Your task to perform on an android device: toggle wifi Image 0: 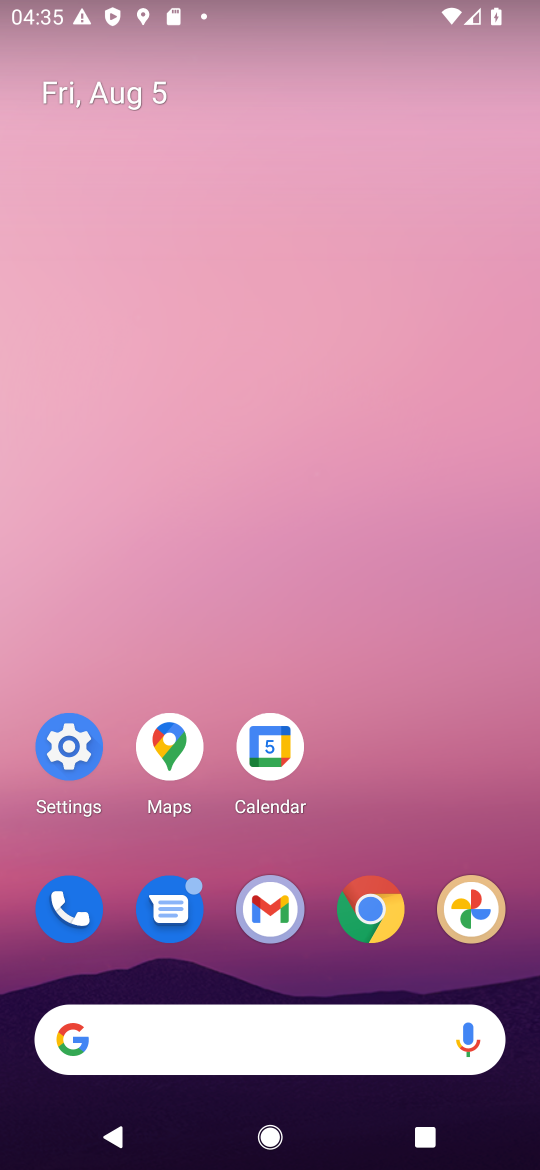
Step 0: click (62, 743)
Your task to perform on an android device: toggle wifi Image 1: 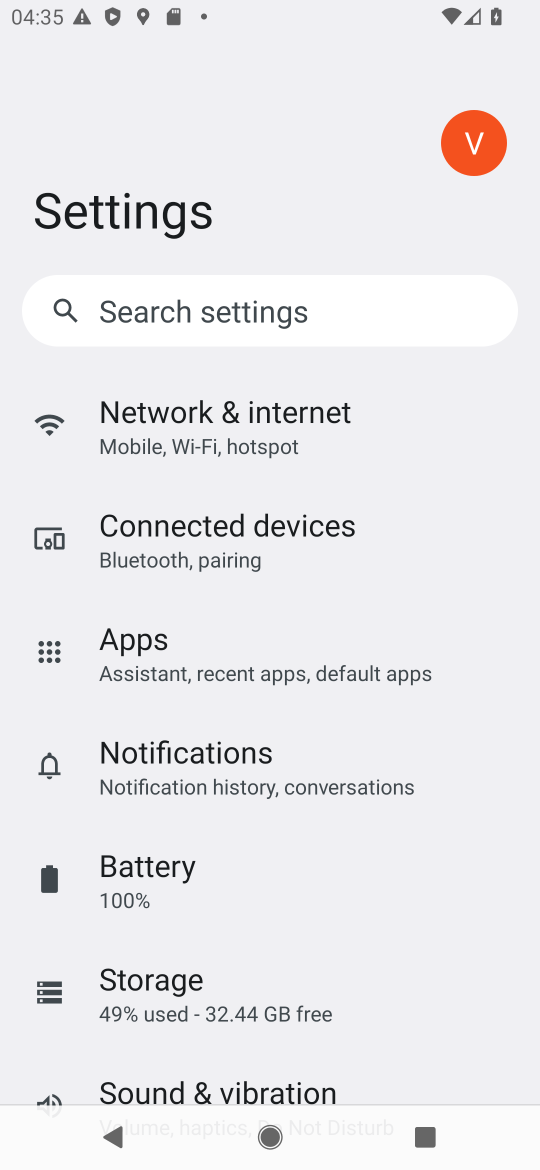
Step 1: click (220, 408)
Your task to perform on an android device: toggle wifi Image 2: 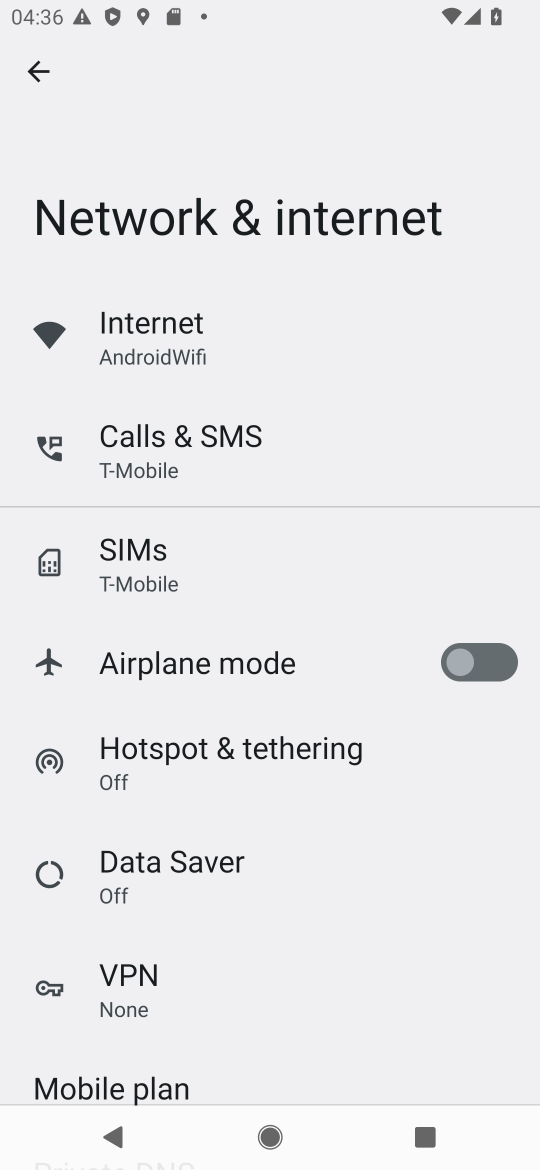
Step 2: click (170, 320)
Your task to perform on an android device: toggle wifi Image 3: 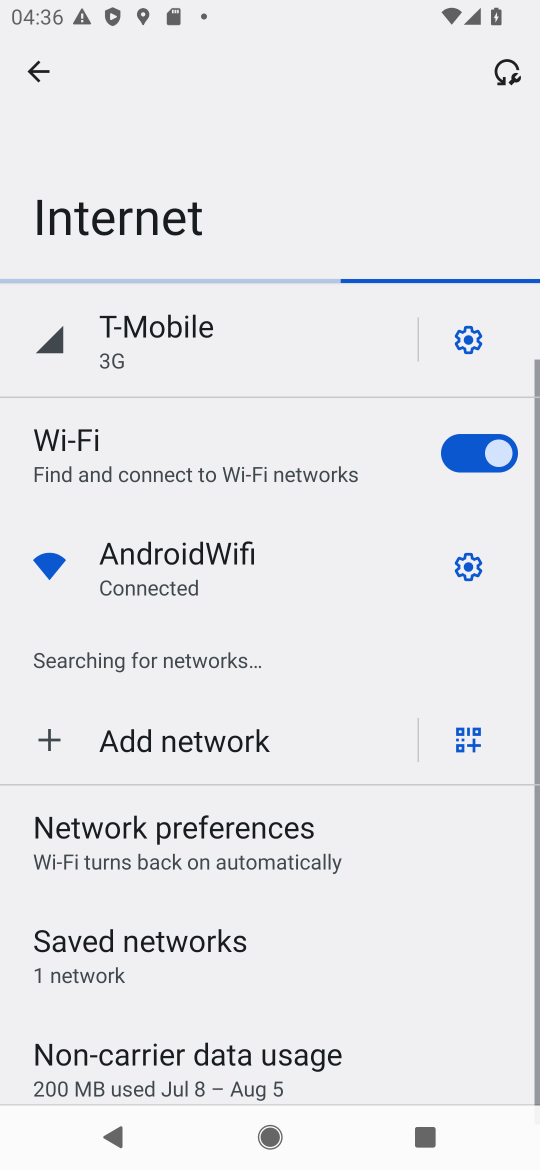
Step 3: click (477, 451)
Your task to perform on an android device: toggle wifi Image 4: 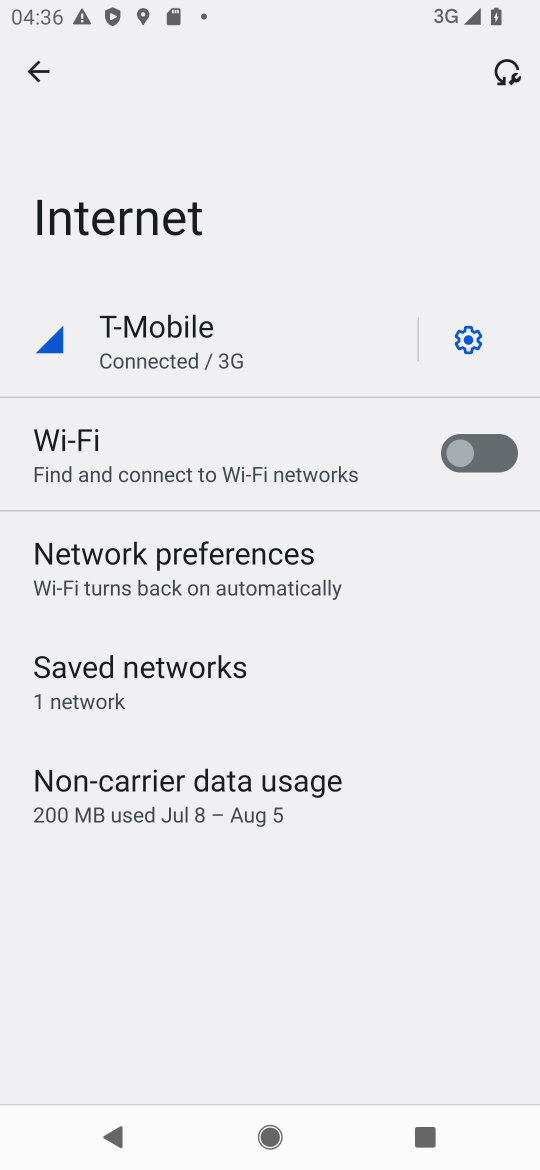
Step 4: task complete